Your task to perform on an android device: Show me popular games on the Play Store Image 0: 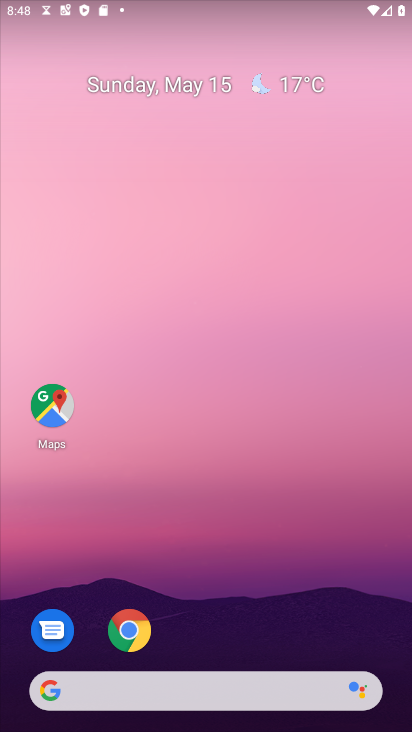
Step 0: drag from (281, 498) to (197, 88)
Your task to perform on an android device: Show me popular games on the Play Store Image 1: 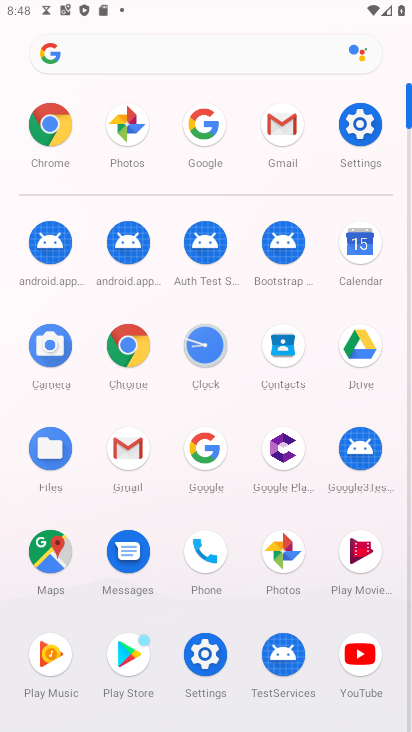
Step 1: drag from (404, 600) to (410, 313)
Your task to perform on an android device: Show me popular games on the Play Store Image 2: 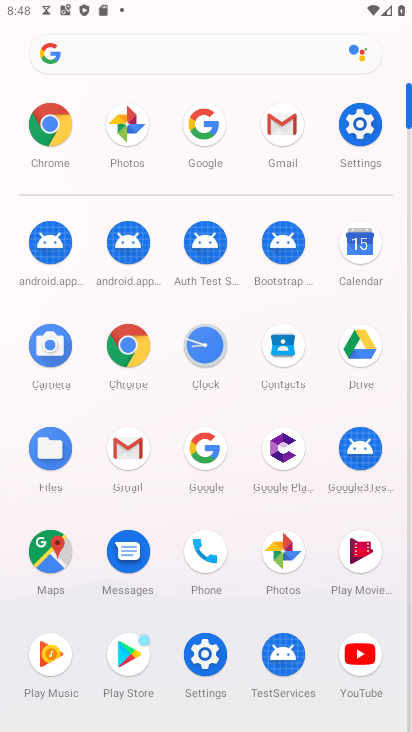
Step 2: click (128, 624)
Your task to perform on an android device: Show me popular games on the Play Store Image 3: 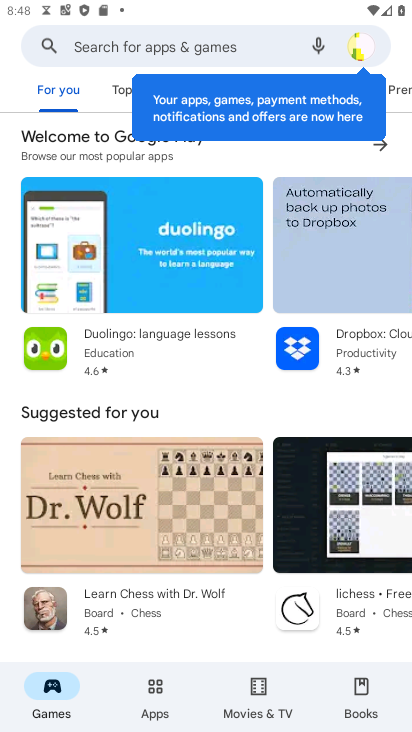
Step 3: click (101, 51)
Your task to perform on an android device: Show me popular games on the Play Store Image 4: 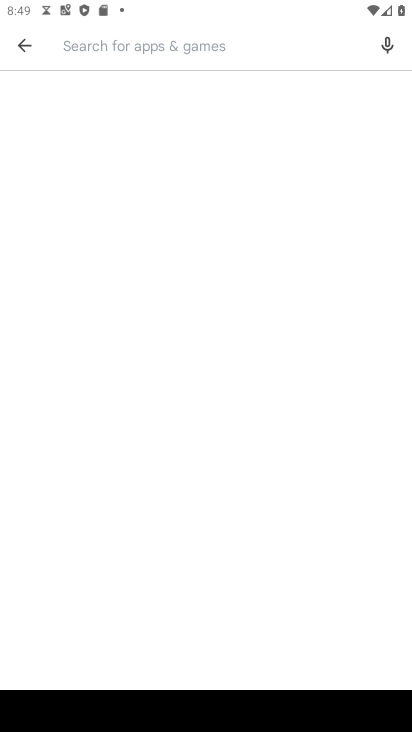
Step 4: type "popular "
Your task to perform on an android device: Show me popular games on the Play Store Image 5: 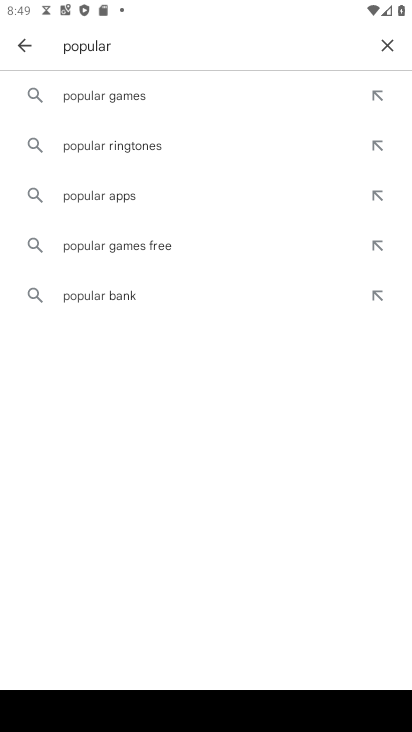
Step 5: click (94, 102)
Your task to perform on an android device: Show me popular games on the Play Store Image 6: 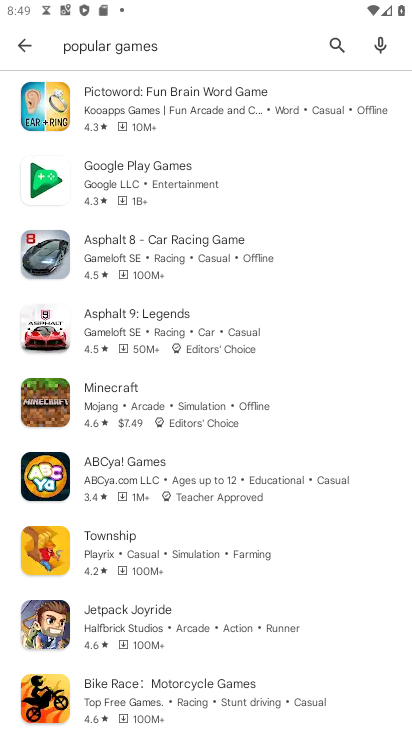
Step 6: task complete